Your task to perform on an android device: What's the weather today? Image 0: 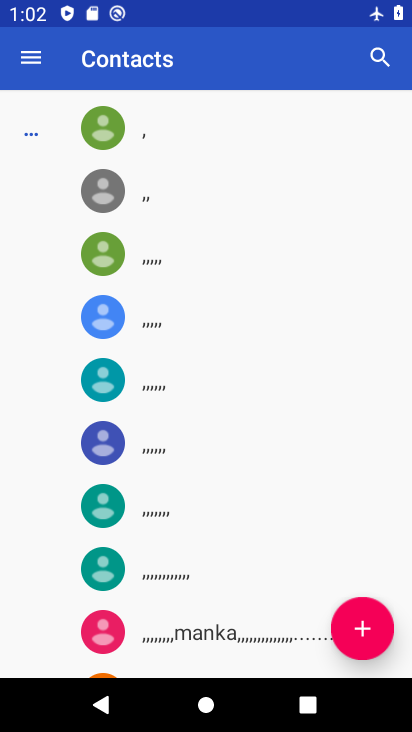
Step 0: press home button
Your task to perform on an android device: What's the weather today? Image 1: 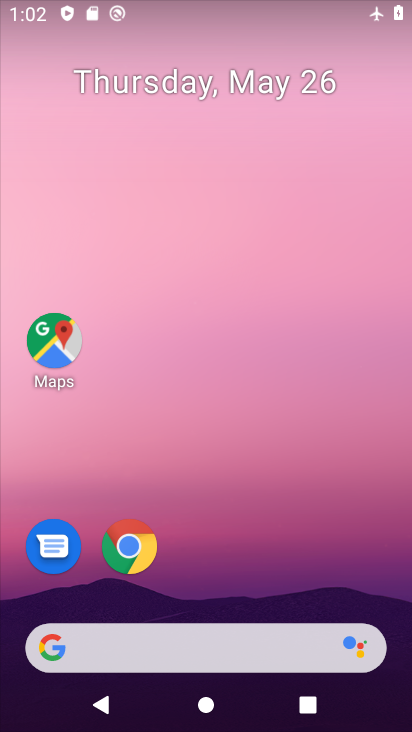
Step 1: drag from (347, 375) to (275, 2)
Your task to perform on an android device: What's the weather today? Image 2: 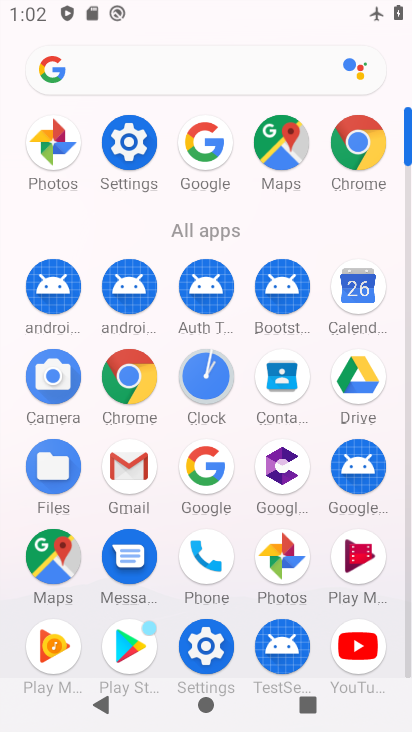
Step 2: click (204, 463)
Your task to perform on an android device: What's the weather today? Image 3: 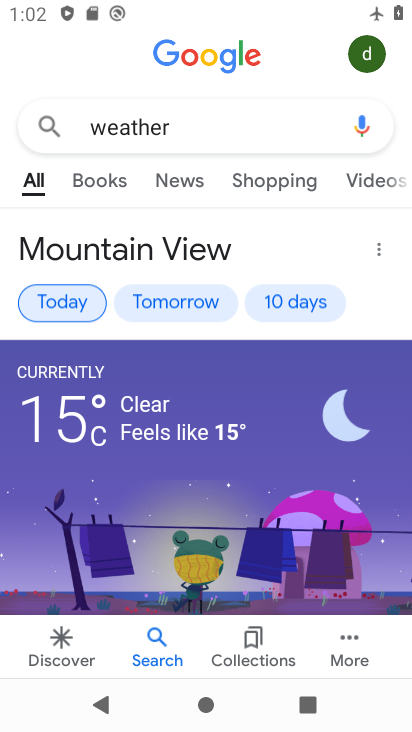
Step 3: task complete